Your task to perform on an android device: Open Google Chrome and click the shortcut for Amazon.com Image 0: 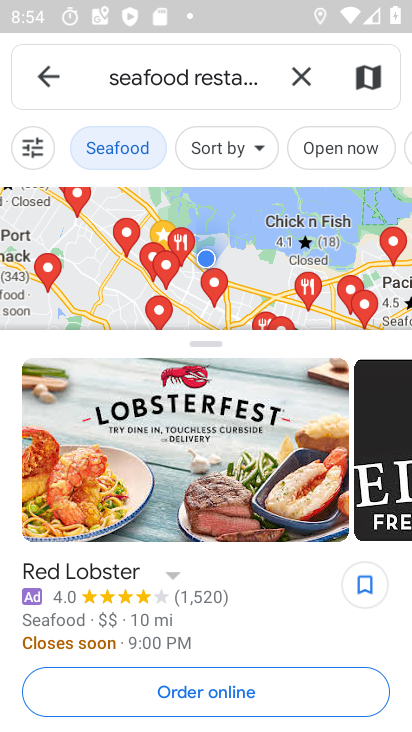
Step 0: press home button
Your task to perform on an android device: Open Google Chrome and click the shortcut for Amazon.com Image 1: 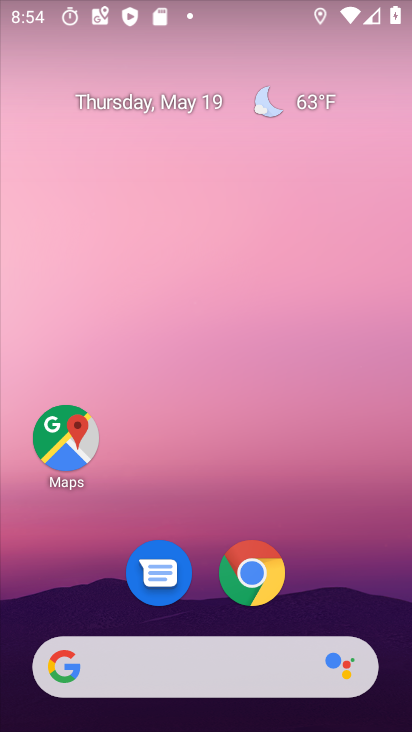
Step 1: click (247, 571)
Your task to perform on an android device: Open Google Chrome and click the shortcut for Amazon.com Image 2: 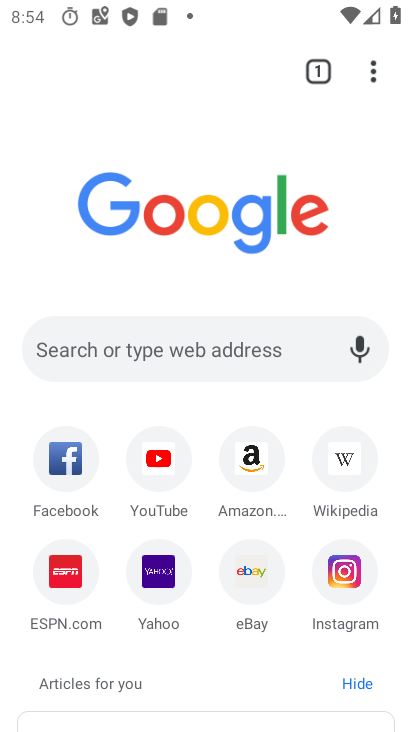
Step 2: click (257, 457)
Your task to perform on an android device: Open Google Chrome and click the shortcut for Amazon.com Image 3: 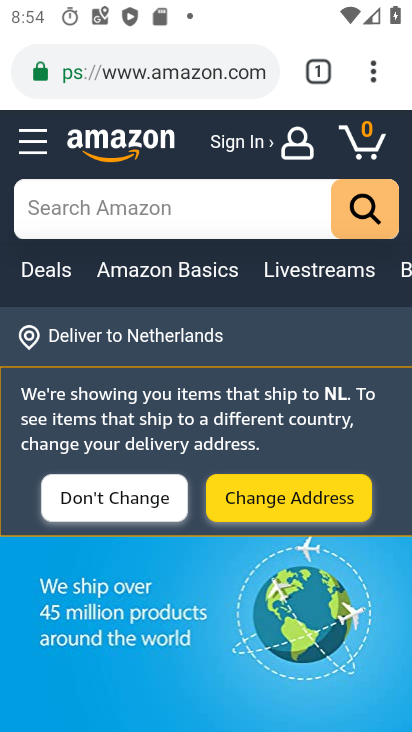
Step 3: task complete